Your task to perform on an android device: turn off data saver in the chrome app Image 0: 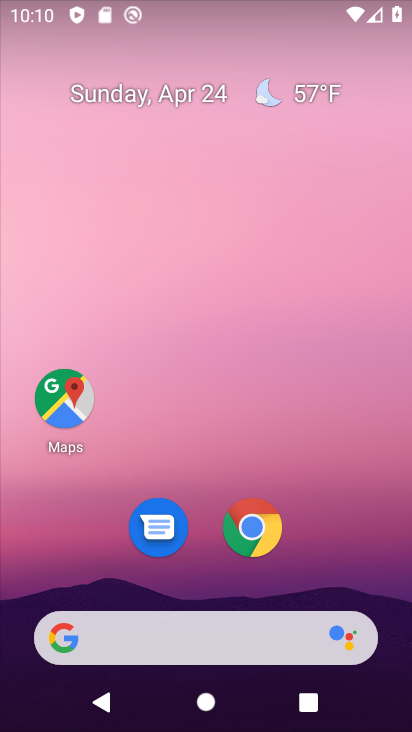
Step 0: drag from (234, 688) to (93, 78)
Your task to perform on an android device: turn off data saver in the chrome app Image 1: 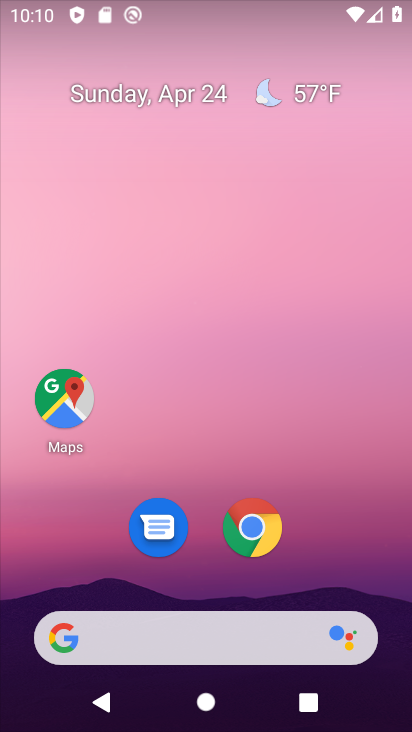
Step 1: drag from (258, 566) to (147, 0)
Your task to perform on an android device: turn off data saver in the chrome app Image 2: 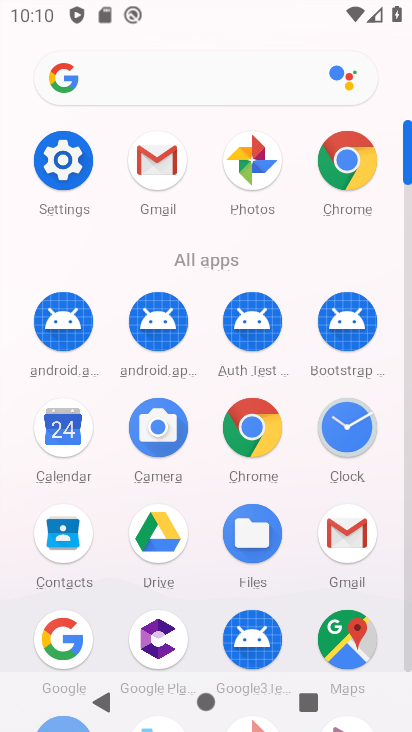
Step 2: click (347, 168)
Your task to perform on an android device: turn off data saver in the chrome app Image 3: 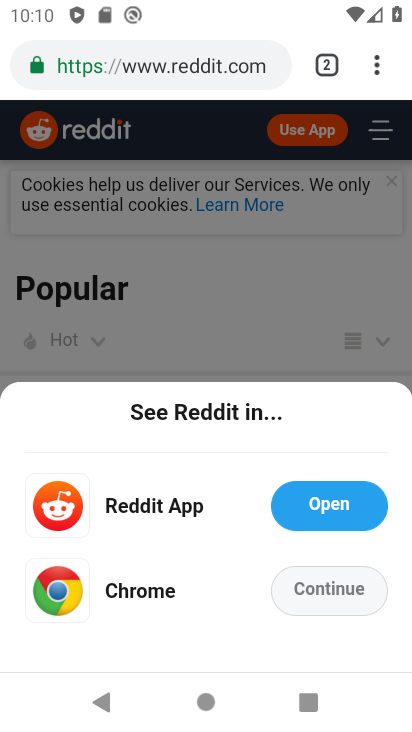
Step 3: drag from (374, 66) to (140, 581)
Your task to perform on an android device: turn off data saver in the chrome app Image 4: 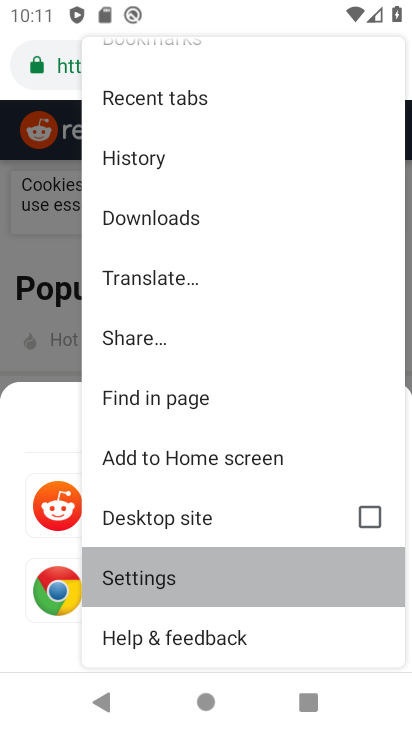
Step 4: click (140, 581)
Your task to perform on an android device: turn off data saver in the chrome app Image 5: 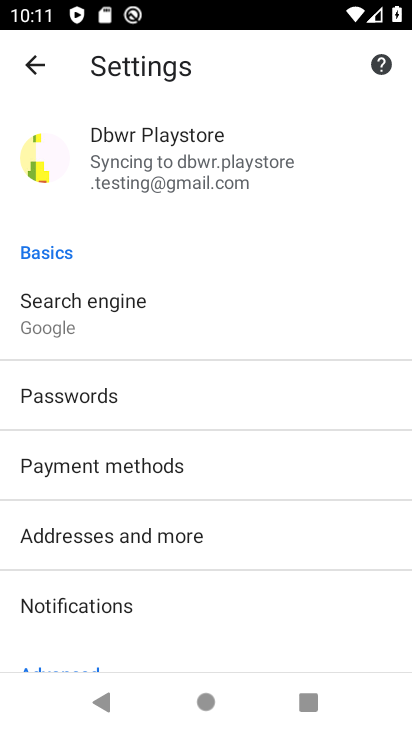
Step 5: drag from (117, 597) to (8, 30)
Your task to perform on an android device: turn off data saver in the chrome app Image 6: 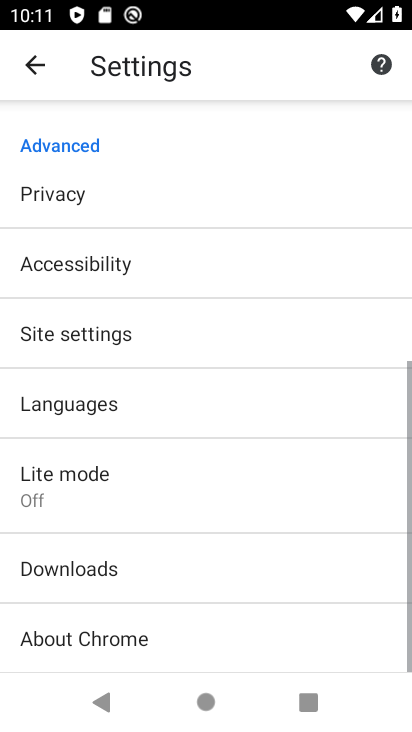
Step 6: drag from (125, 554) to (109, 53)
Your task to perform on an android device: turn off data saver in the chrome app Image 7: 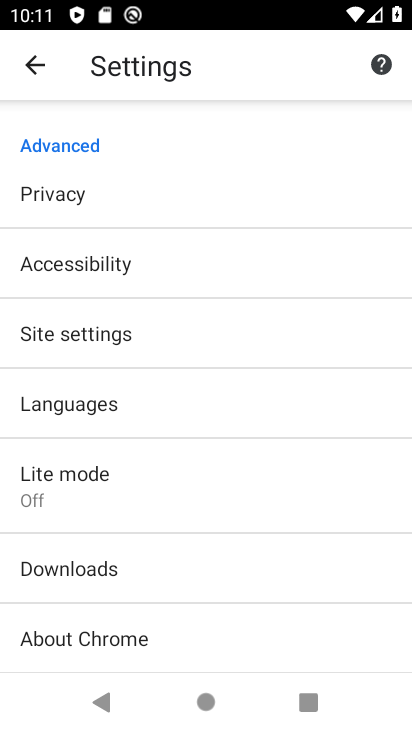
Step 7: click (35, 451)
Your task to perform on an android device: turn off data saver in the chrome app Image 8: 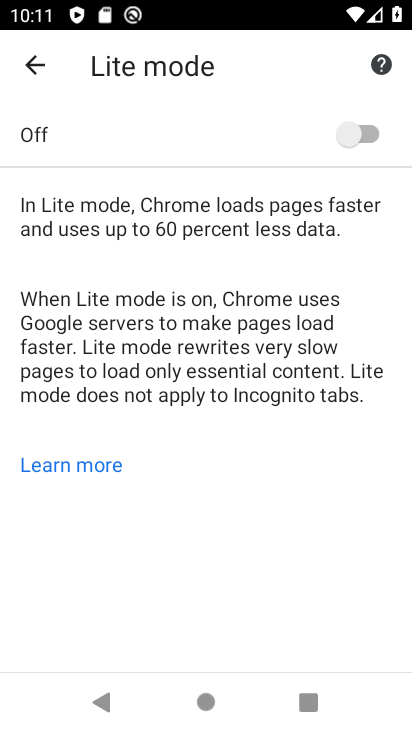
Step 8: task complete